Your task to perform on an android device: Open the calendar and show me this week's events? Image 0: 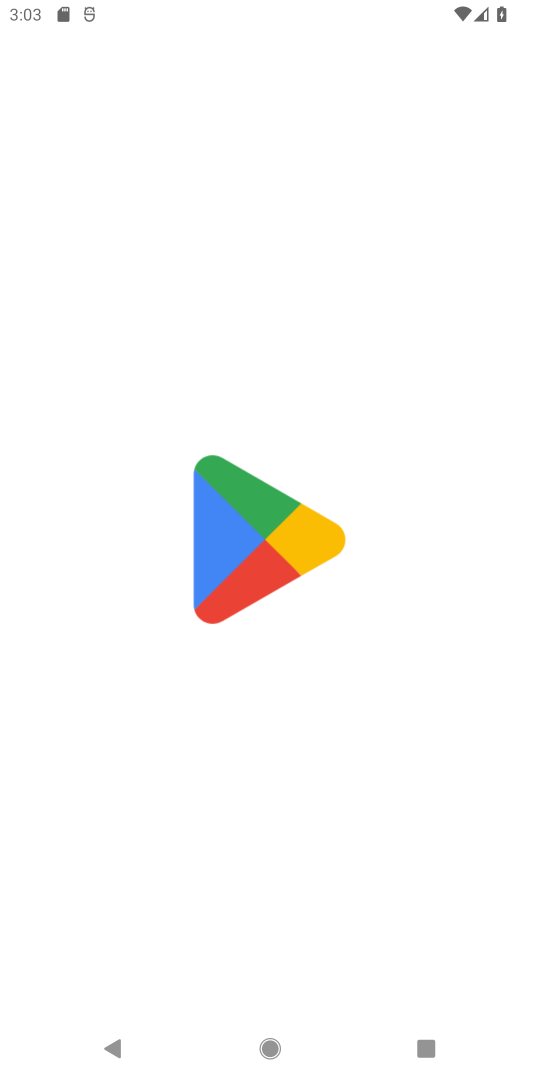
Step 0: press back button
Your task to perform on an android device: Open the calendar and show me this week's events? Image 1: 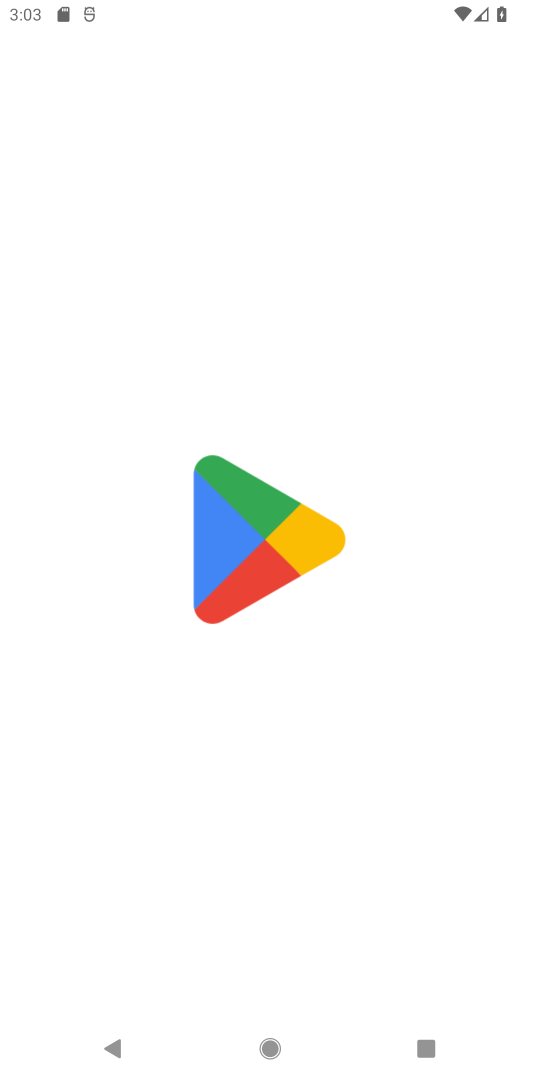
Step 1: press back button
Your task to perform on an android device: Open the calendar and show me this week's events? Image 2: 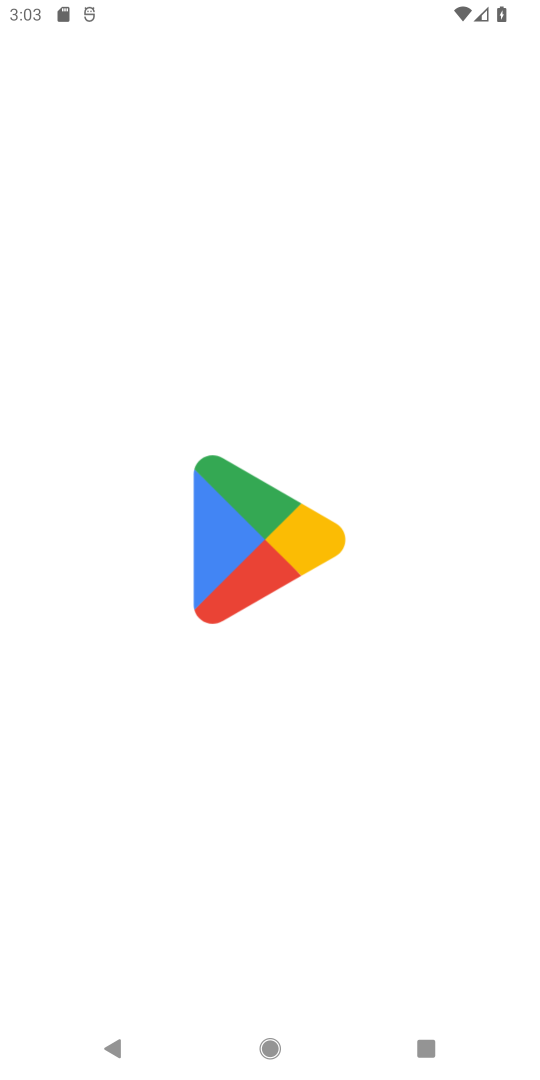
Step 2: click (264, 513)
Your task to perform on an android device: Open the calendar and show me this week's events? Image 3: 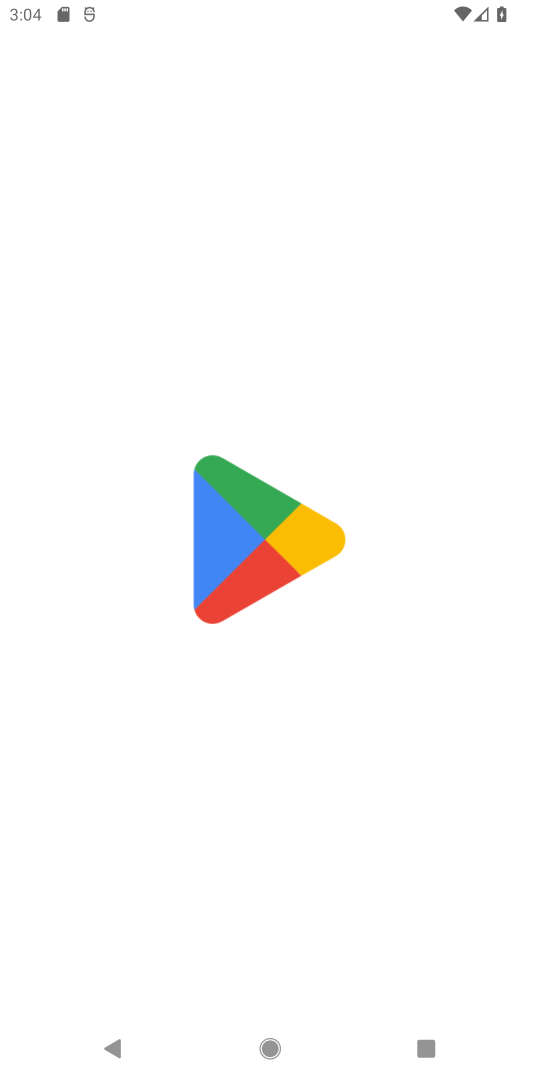
Step 3: press home button
Your task to perform on an android device: Open the calendar and show me this week's events? Image 4: 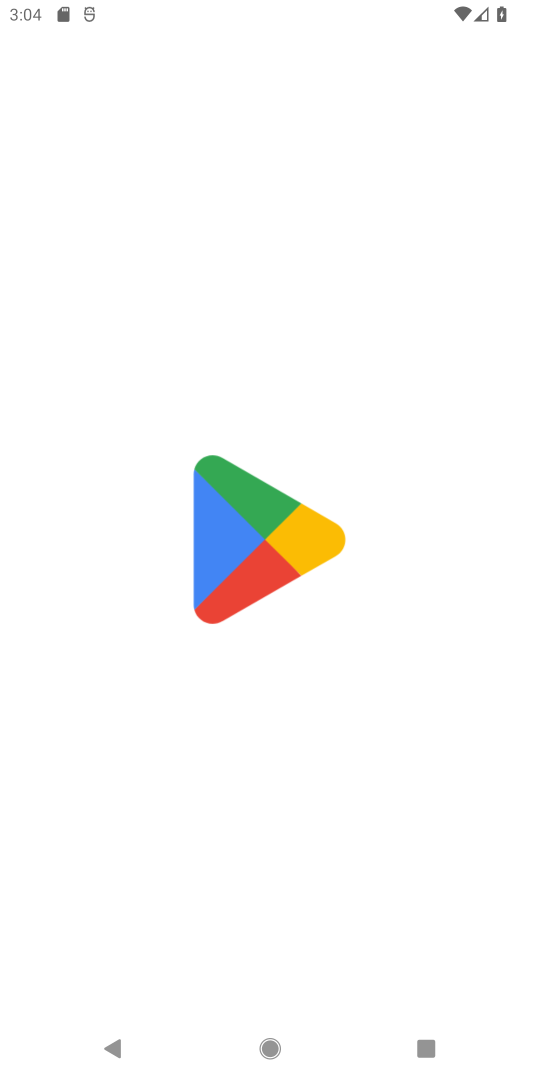
Step 4: click (265, 513)
Your task to perform on an android device: Open the calendar and show me this week's events? Image 5: 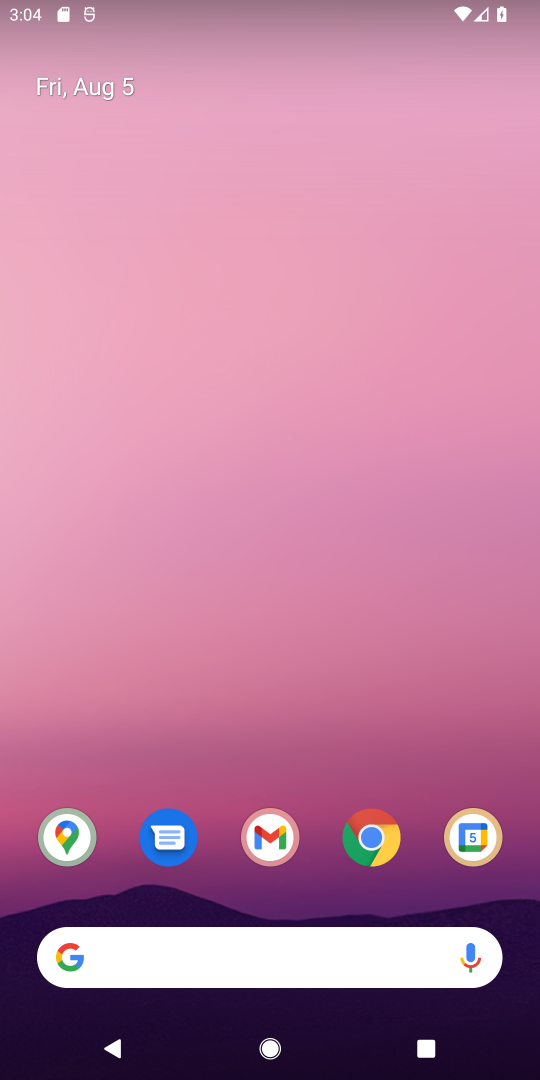
Step 5: click (171, 6)
Your task to perform on an android device: Open the calendar and show me this week's events? Image 6: 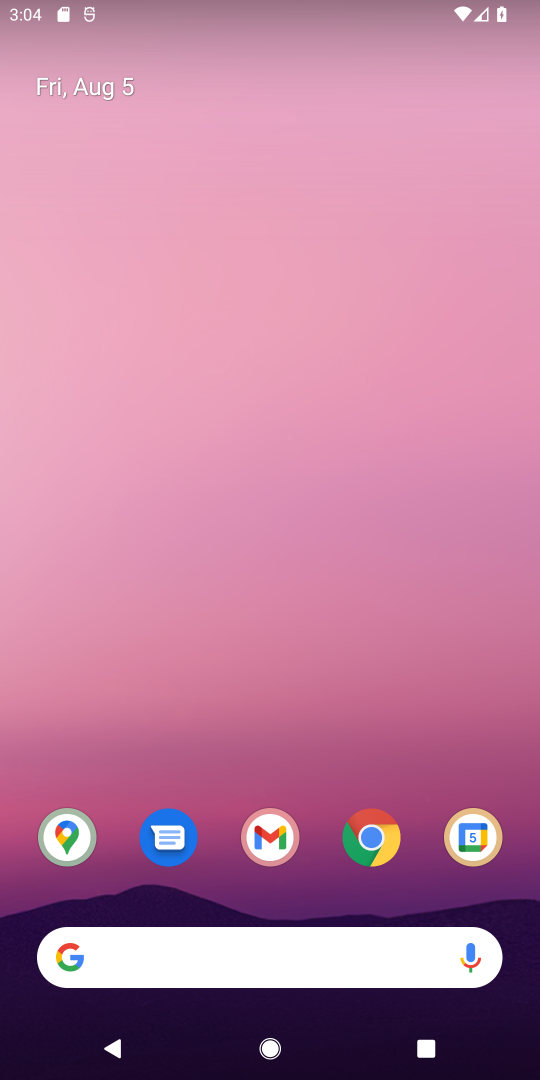
Step 6: click (245, 78)
Your task to perform on an android device: Open the calendar and show me this week's events? Image 7: 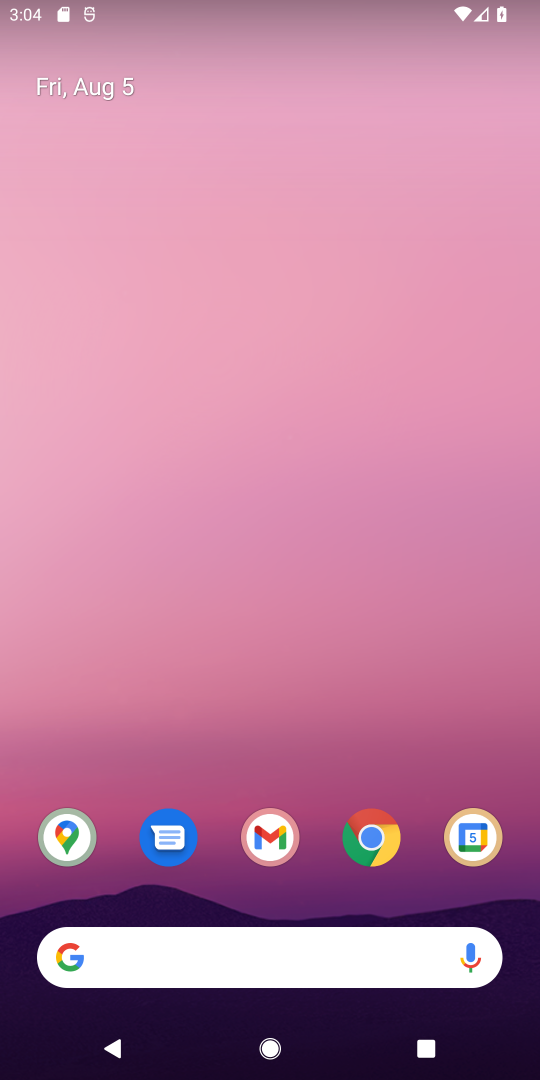
Step 7: click (242, 72)
Your task to perform on an android device: Open the calendar and show me this week's events? Image 8: 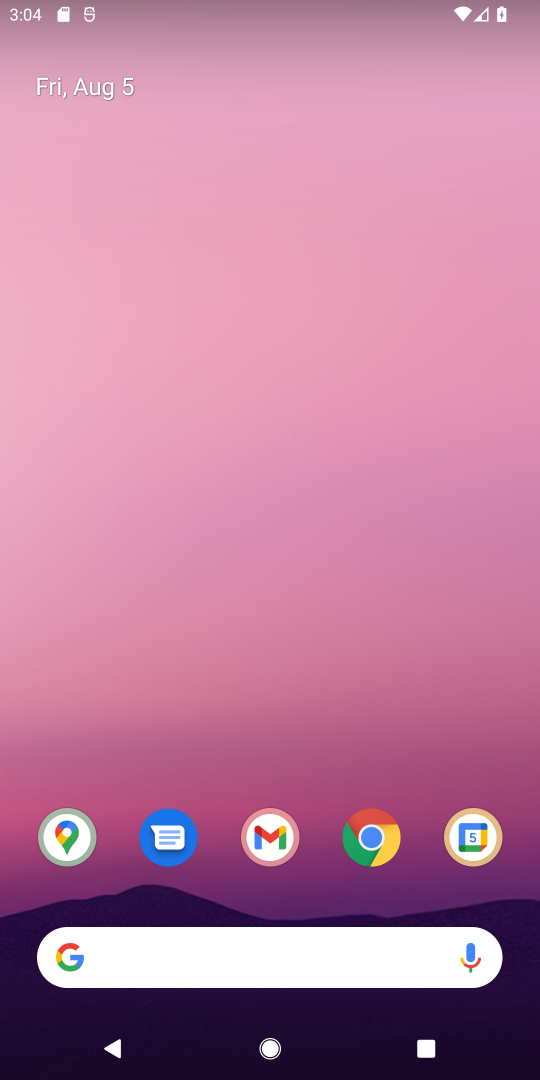
Step 8: drag from (168, 68) to (196, 0)
Your task to perform on an android device: Open the calendar and show me this week's events? Image 9: 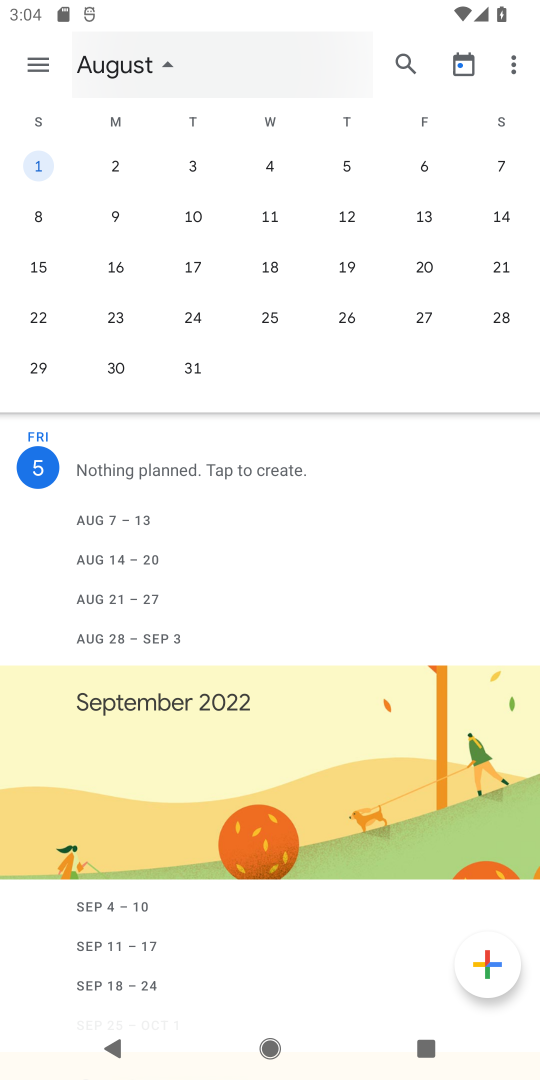
Step 9: drag from (308, 649) to (297, 49)
Your task to perform on an android device: Open the calendar and show me this week's events? Image 10: 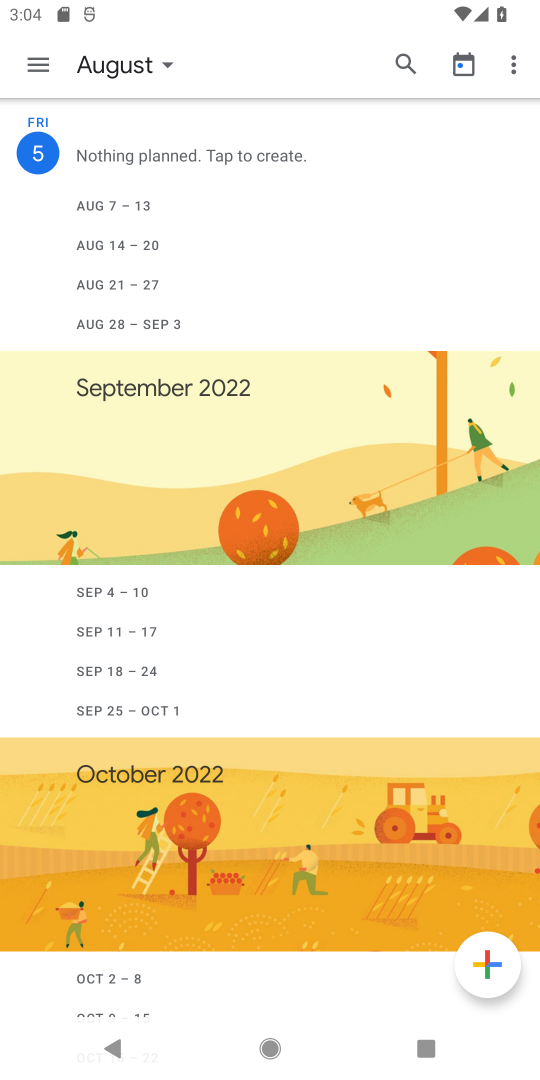
Step 10: click (169, 56)
Your task to perform on an android device: Open the calendar and show me this week's events? Image 11: 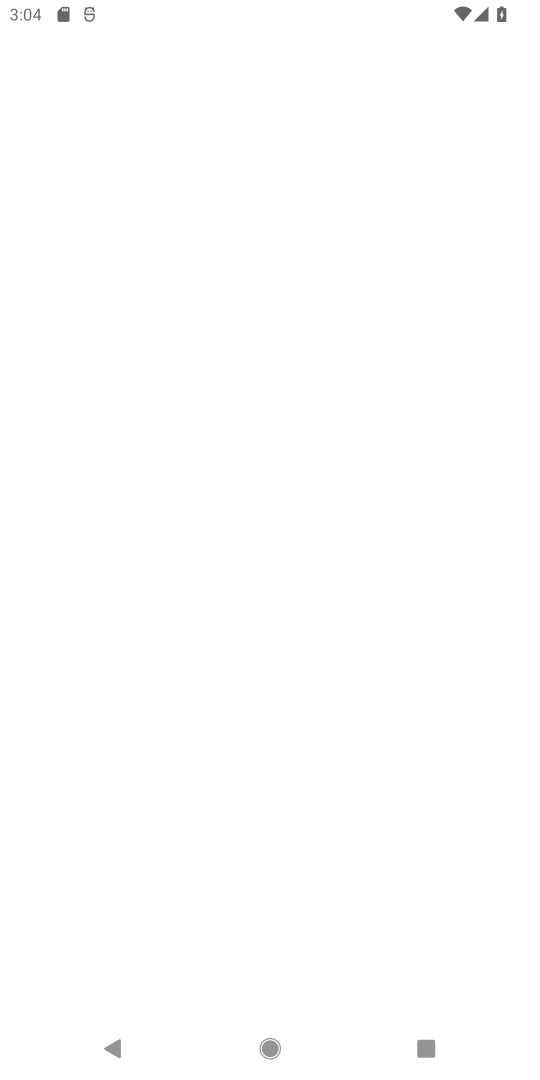
Step 11: click (339, 176)
Your task to perform on an android device: Open the calendar and show me this week's events? Image 12: 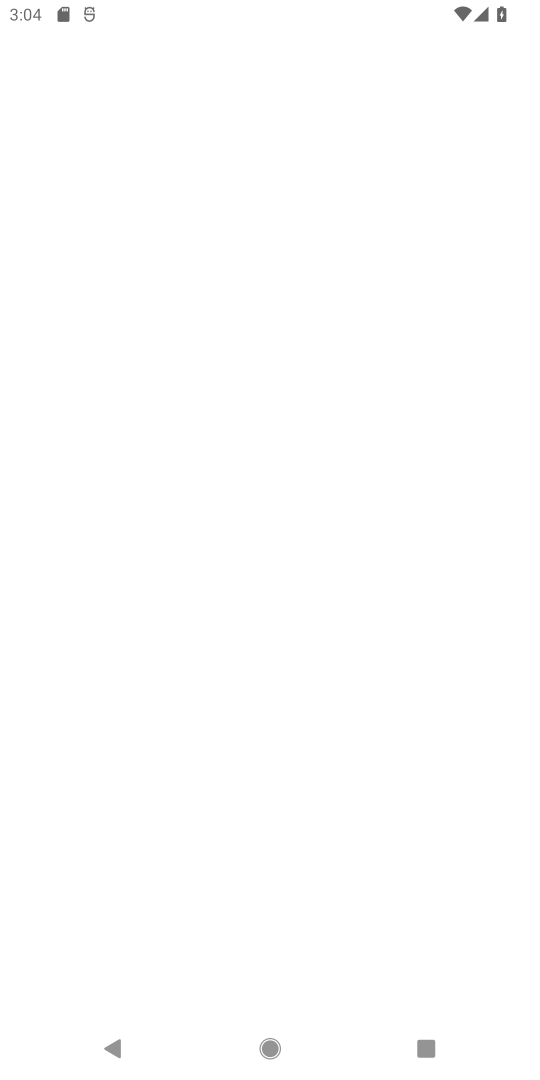
Step 12: click (339, 176)
Your task to perform on an android device: Open the calendar and show me this week's events? Image 13: 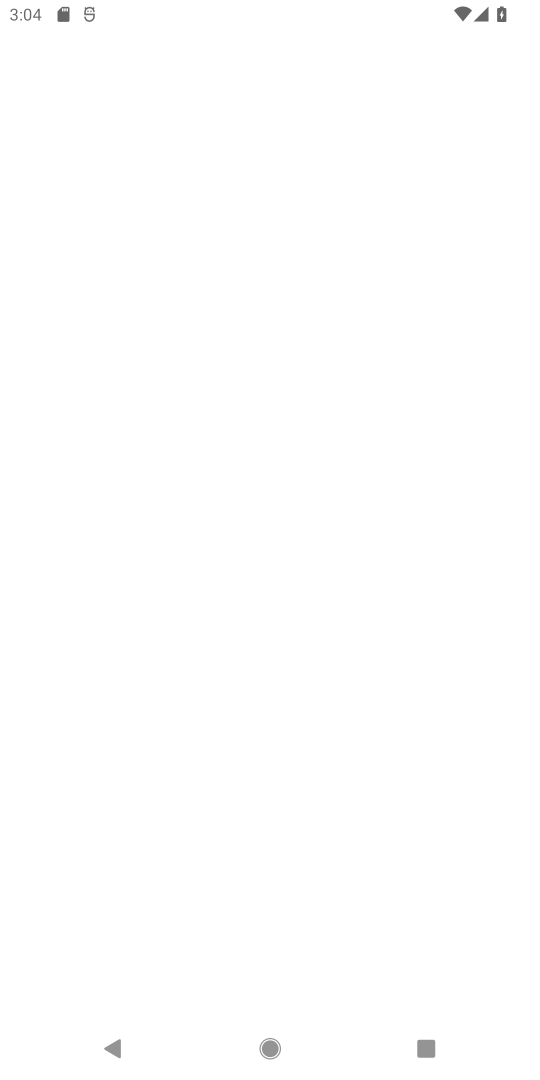
Step 13: click (339, 176)
Your task to perform on an android device: Open the calendar and show me this week's events? Image 14: 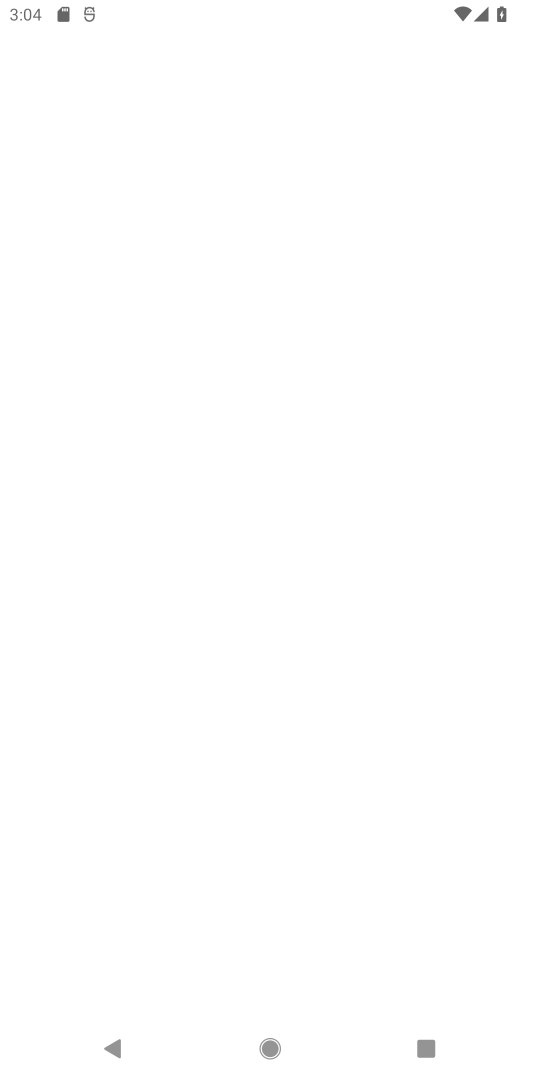
Step 14: click (339, 176)
Your task to perform on an android device: Open the calendar and show me this week's events? Image 15: 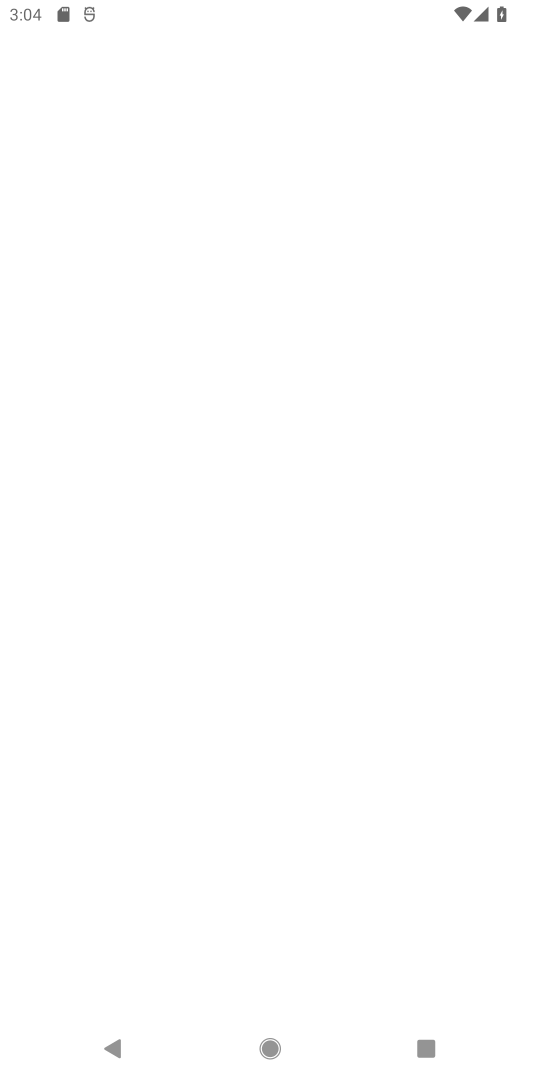
Step 15: click (339, 176)
Your task to perform on an android device: Open the calendar and show me this week's events? Image 16: 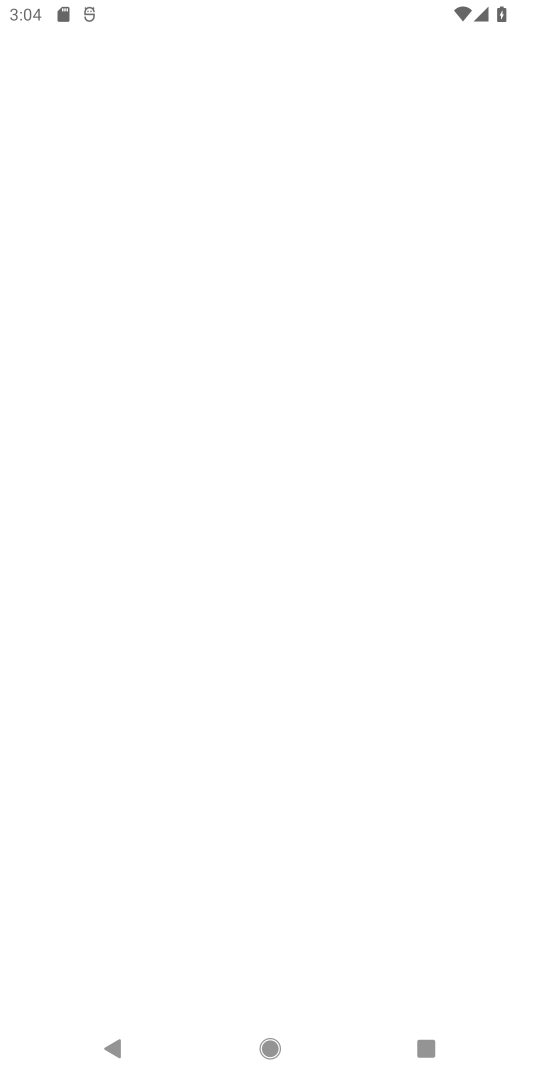
Step 16: click (339, 176)
Your task to perform on an android device: Open the calendar and show me this week's events? Image 17: 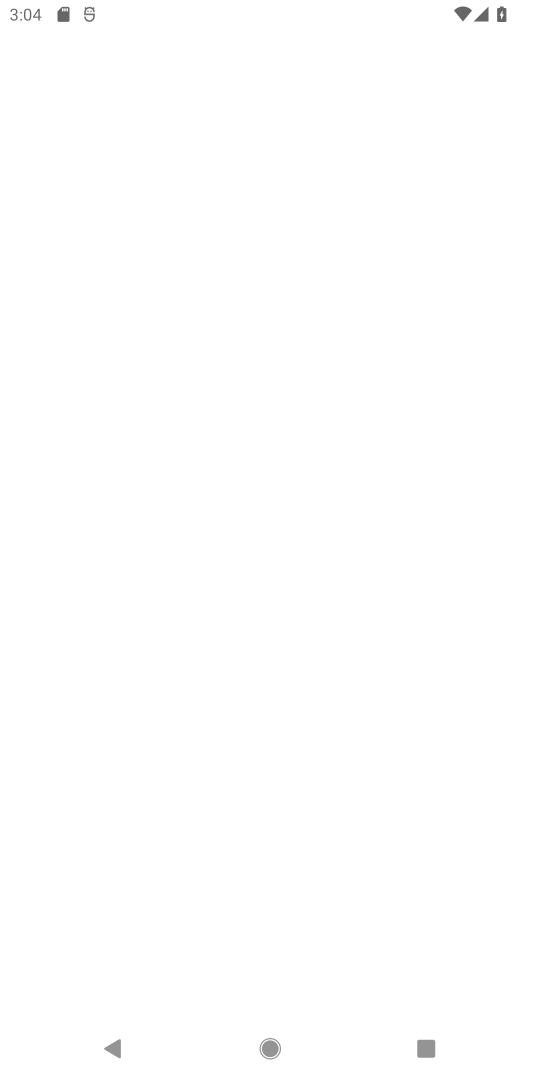
Step 17: click (175, 153)
Your task to perform on an android device: Open the calendar and show me this week's events? Image 18: 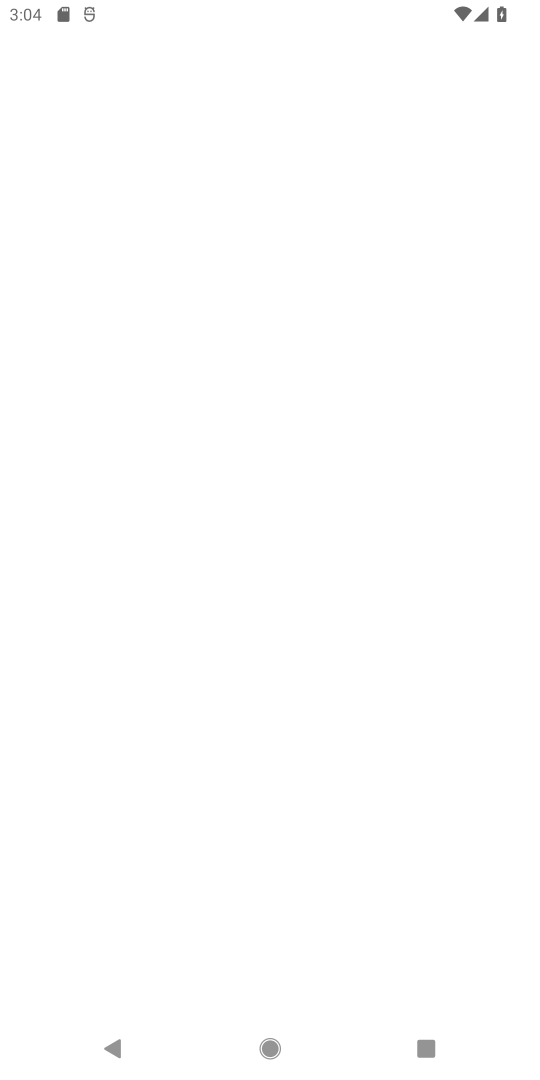
Step 18: drag from (175, 153) to (114, 122)
Your task to perform on an android device: Open the calendar and show me this week's events? Image 19: 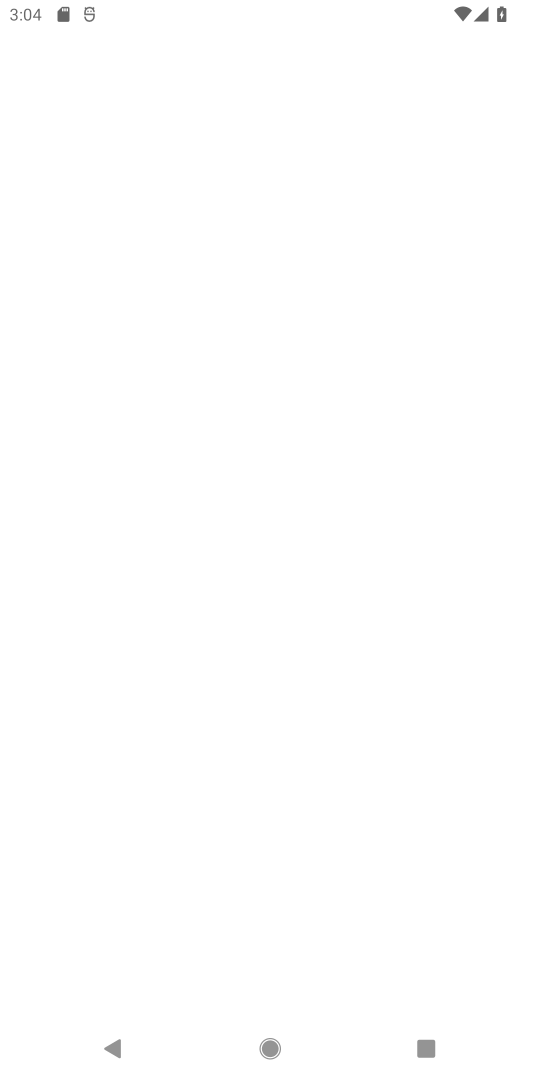
Step 19: click (133, 111)
Your task to perform on an android device: Open the calendar and show me this week's events? Image 20: 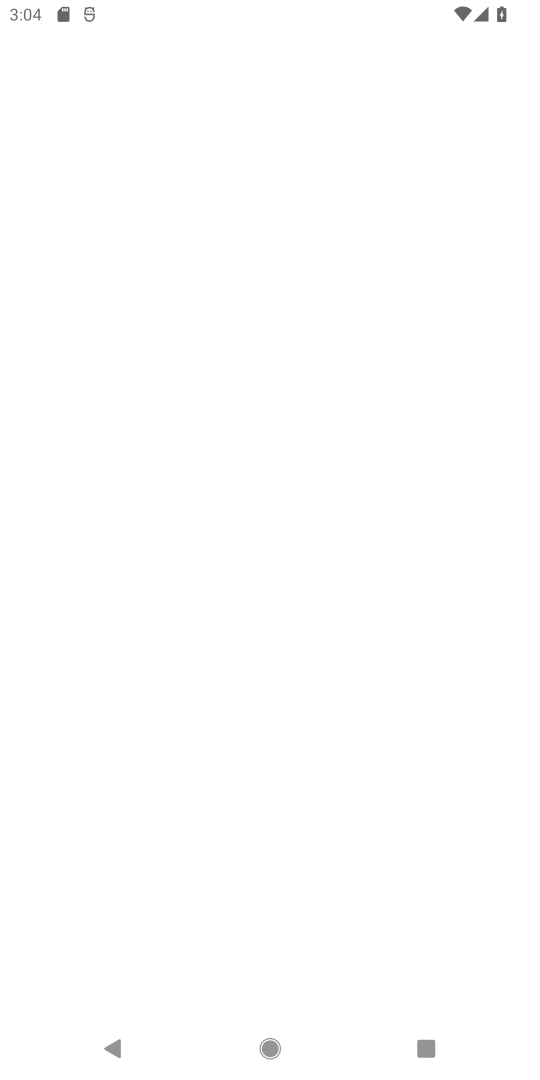
Step 20: click (169, 172)
Your task to perform on an android device: Open the calendar and show me this week's events? Image 21: 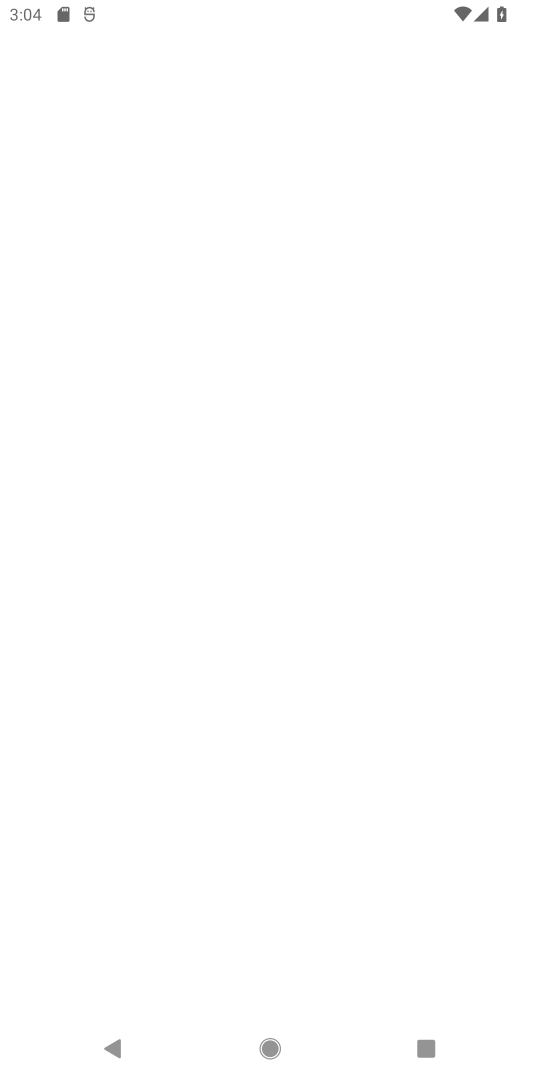
Step 21: click (169, 173)
Your task to perform on an android device: Open the calendar and show me this week's events? Image 22: 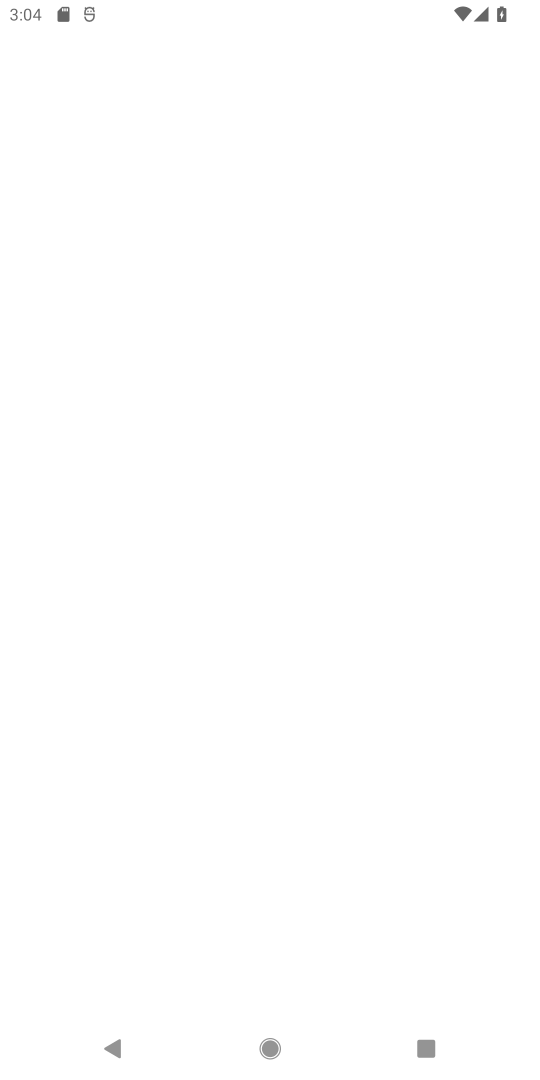
Step 22: click (171, 181)
Your task to perform on an android device: Open the calendar and show me this week's events? Image 23: 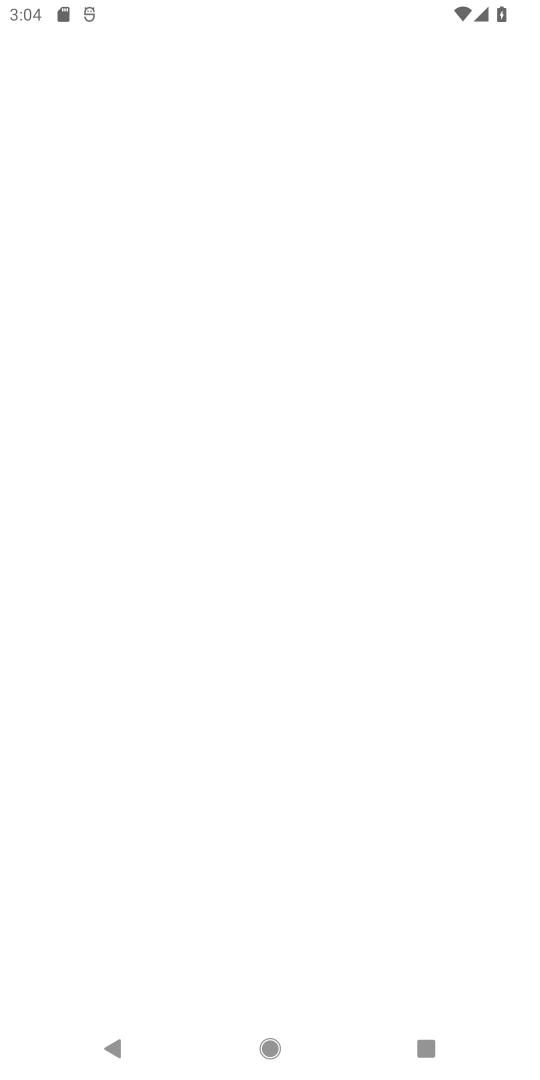
Step 23: click (171, 181)
Your task to perform on an android device: Open the calendar and show me this week's events? Image 24: 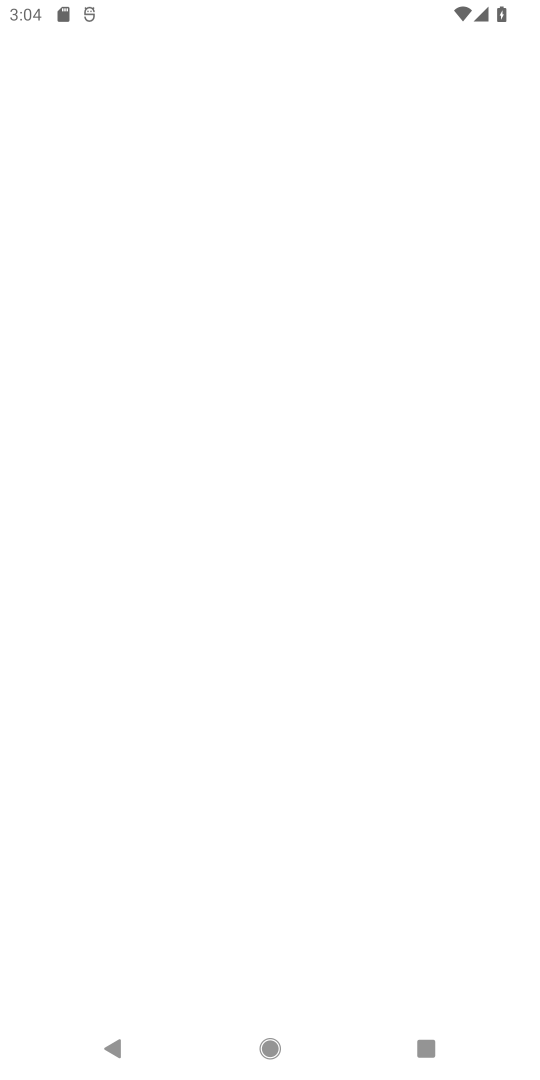
Step 24: click (76, 81)
Your task to perform on an android device: Open the calendar and show me this week's events? Image 25: 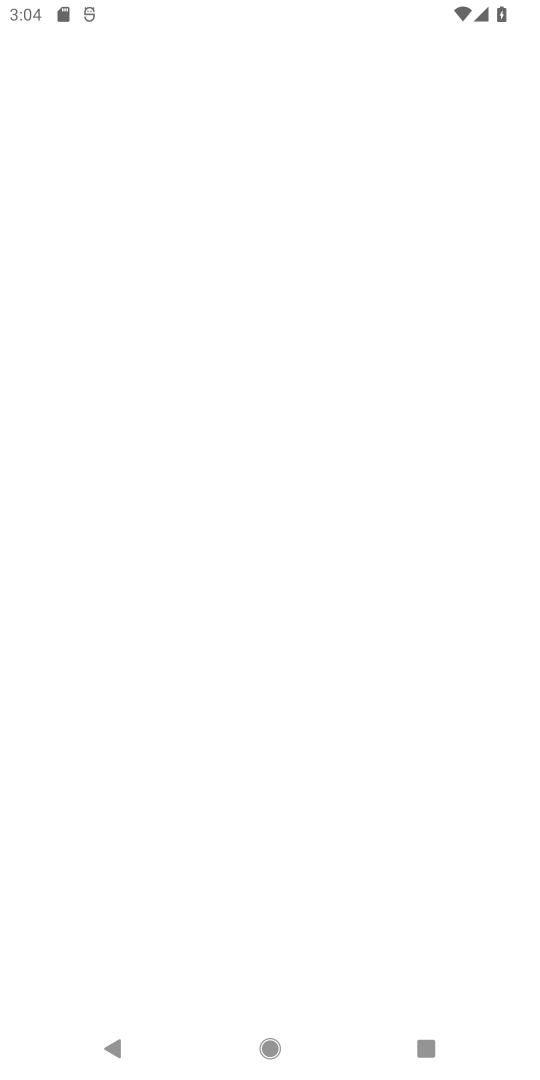
Step 25: click (79, 84)
Your task to perform on an android device: Open the calendar and show me this week's events? Image 26: 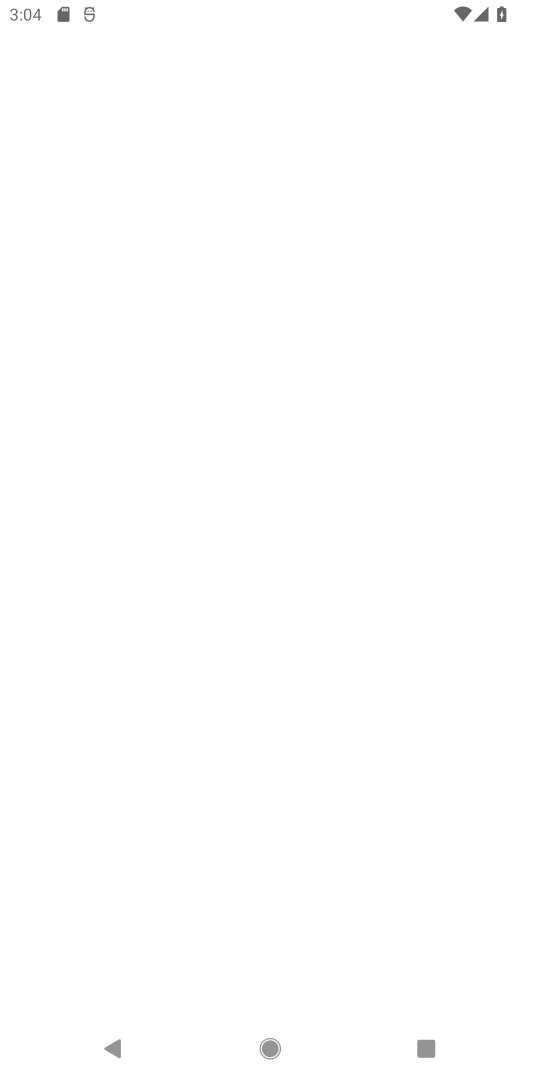
Step 26: click (84, 88)
Your task to perform on an android device: Open the calendar and show me this week's events? Image 27: 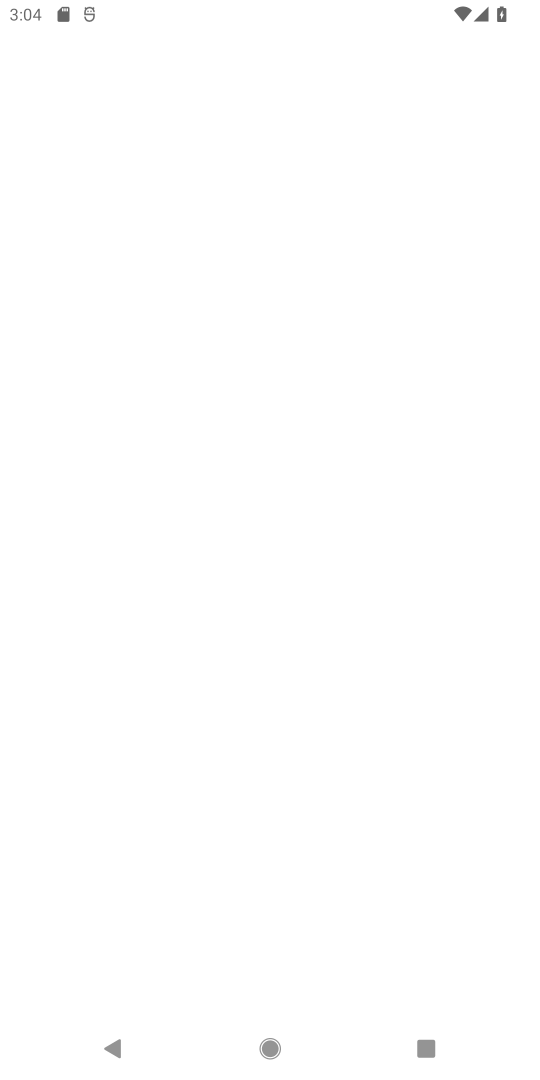
Step 27: click (90, 91)
Your task to perform on an android device: Open the calendar and show me this week's events? Image 28: 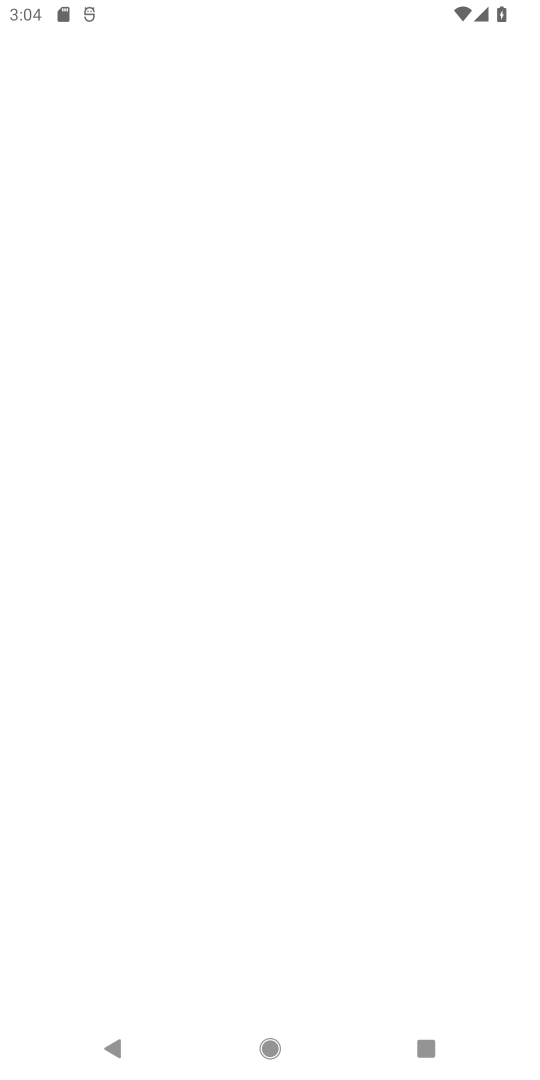
Step 28: click (106, 102)
Your task to perform on an android device: Open the calendar and show me this week's events? Image 29: 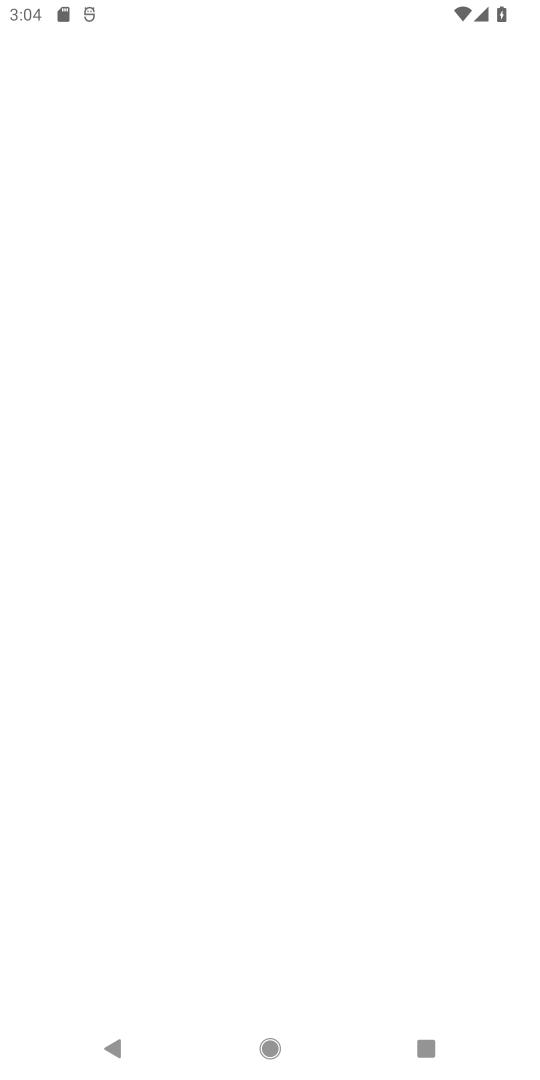
Step 29: drag from (62, 74) to (124, 103)
Your task to perform on an android device: Open the calendar and show me this week's events? Image 30: 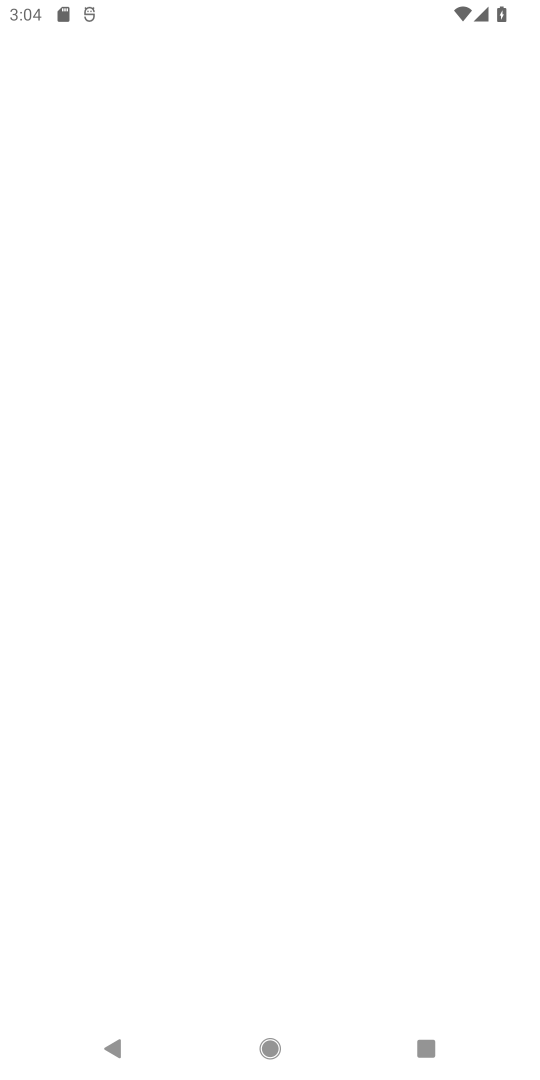
Step 30: click (138, 118)
Your task to perform on an android device: Open the calendar and show me this week's events? Image 31: 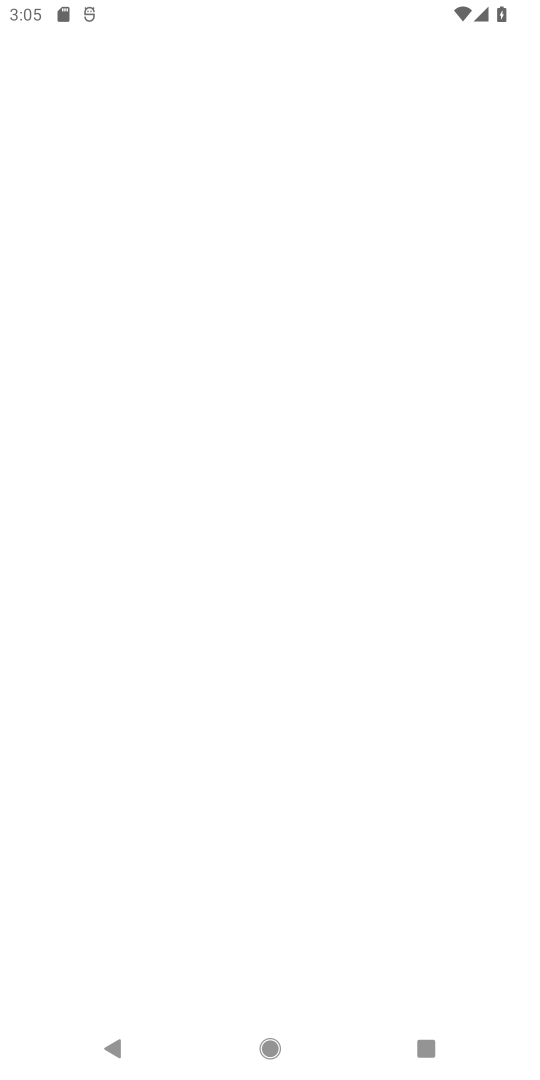
Step 31: click (329, 171)
Your task to perform on an android device: Open the calendar and show me this week's events? Image 32: 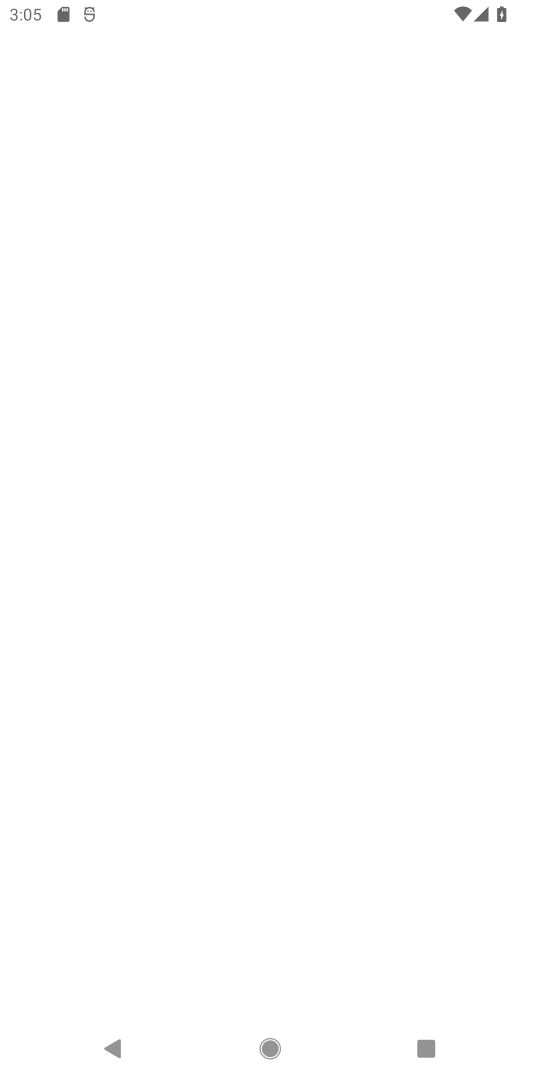
Step 32: click (322, 183)
Your task to perform on an android device: Open the calendar and show me this week's events? Image 33: 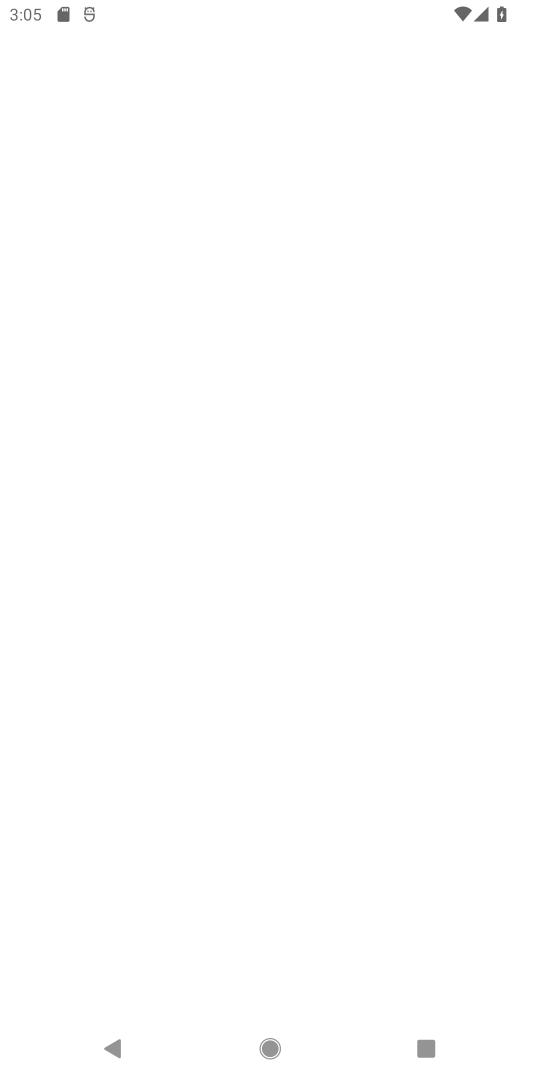
Step 33: click (312, 207)
Your task to perform on an android device: Open the calendar and show me this week's events? Image 34: 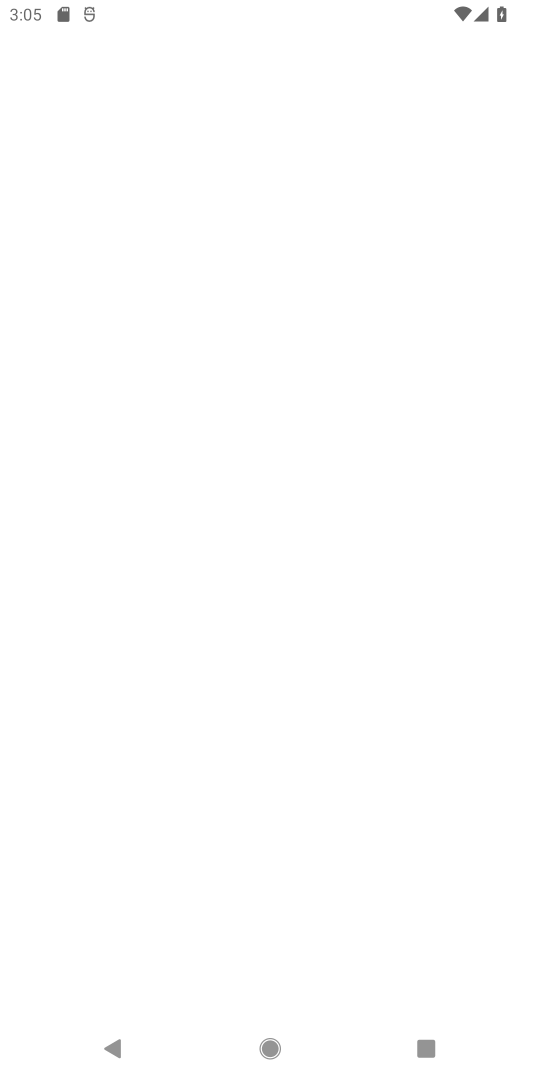
Step 34: click (311, 214)
Your task to perform on an android device: Open the calendar and show me this week's events? Image 35: 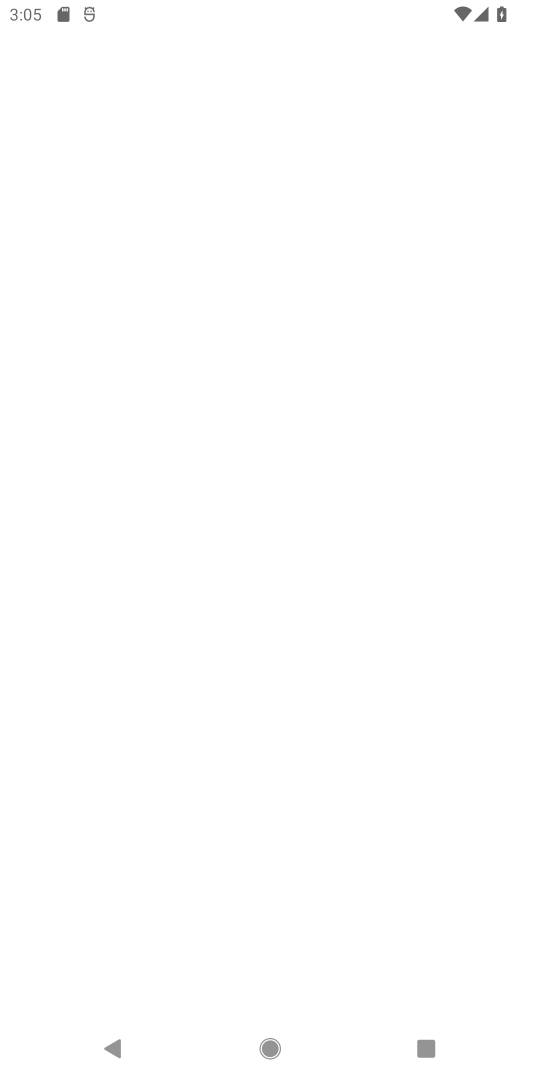
Step 35: click (309, 217)
Your task to perform on an android device: Open the calendar and show me this week's events? Image 36: 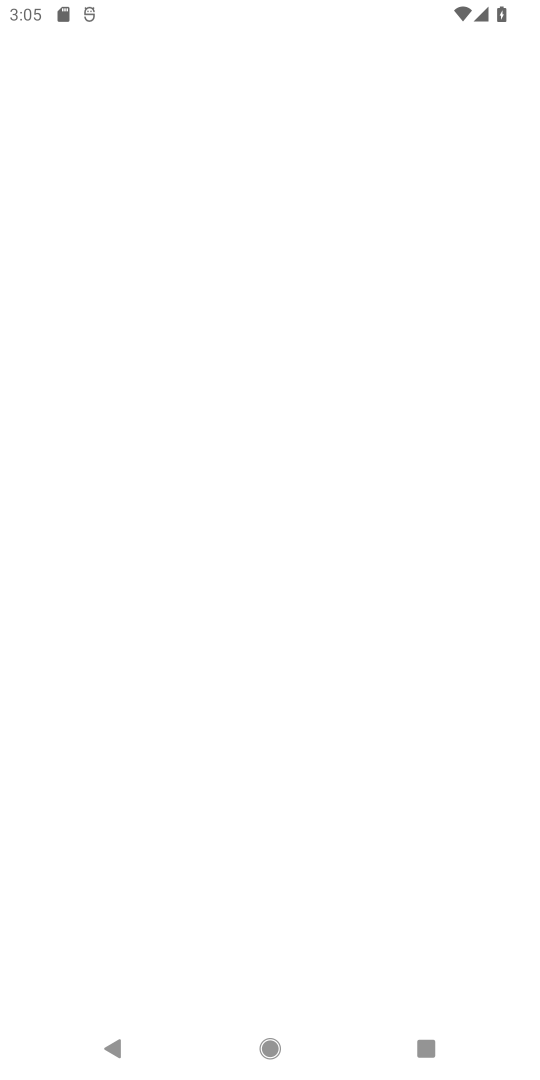
Step 36: click (312, 214)
Your task to perform on an android device: Open the calendar and show me this week's events? Image 37: 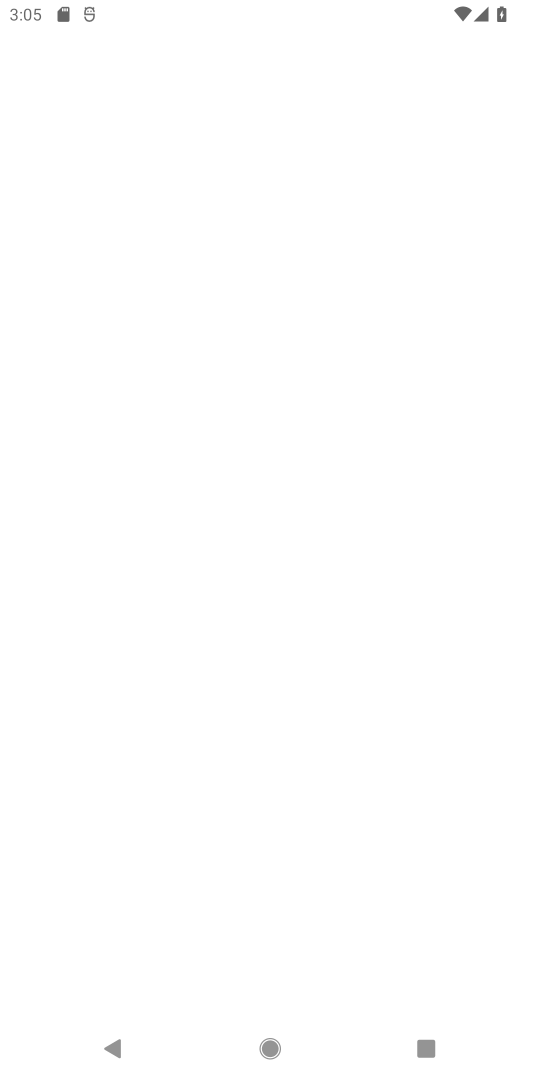
Step 37: click (68, 37)
Your task to perform on an android device: Open the calendar and show me this week's events? Image 38: 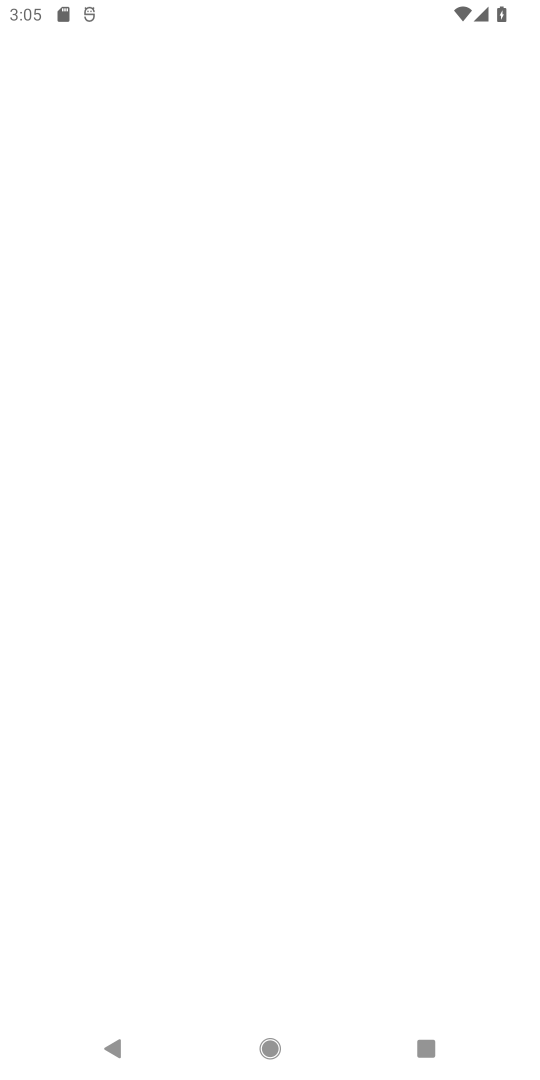
Step 38: click (52, 2)
Your task to perform on an android device: Open the calendar and show me this week's events? Image 39: 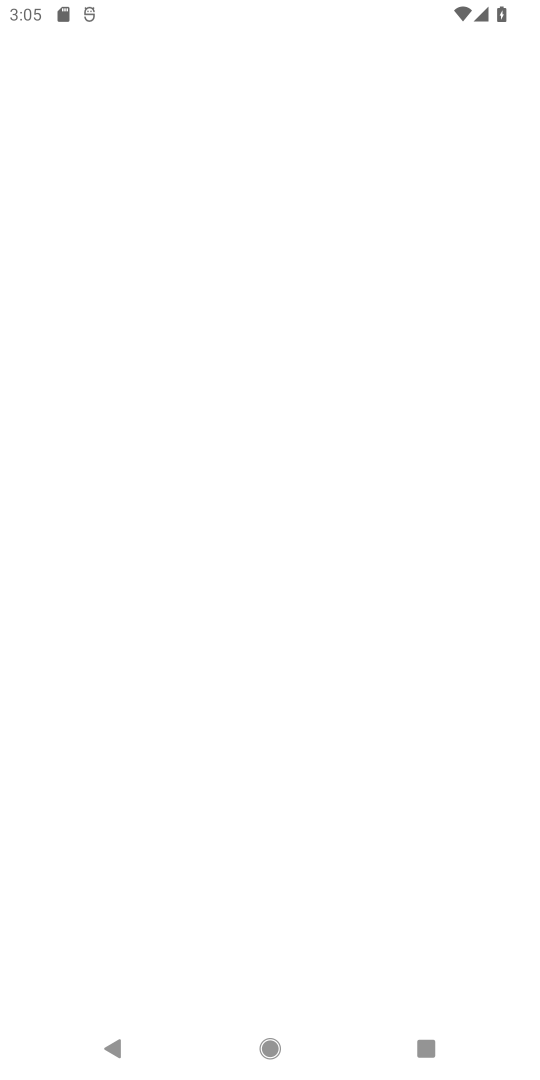
Step 39: click (54, 0)
Your task to perform on an android device: Open the calendar and show me this week's events? Image 40: 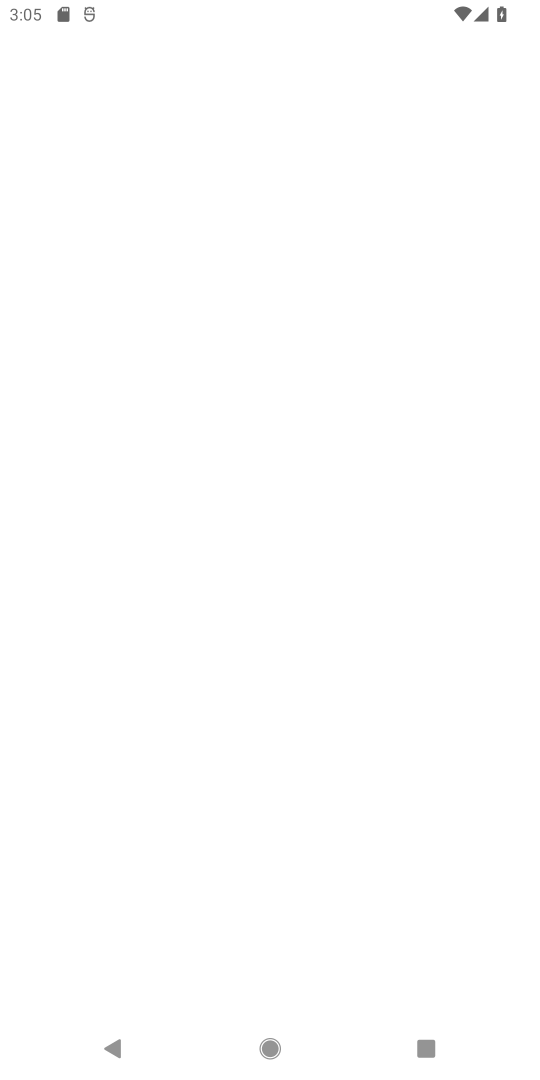
Step 40: click (55, 2)
Your task to perform on an android device: Open the calendar and show me this week's events? Image 41: 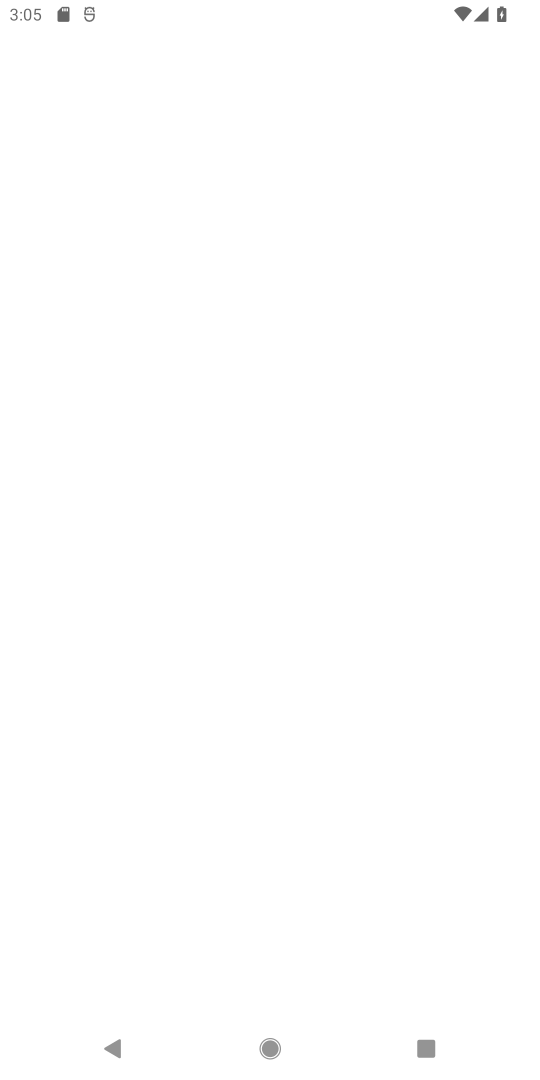
Step 41: click (55, 2)
Your task to perform on an android device: Open the calendar and show me this week's events? Image 42: 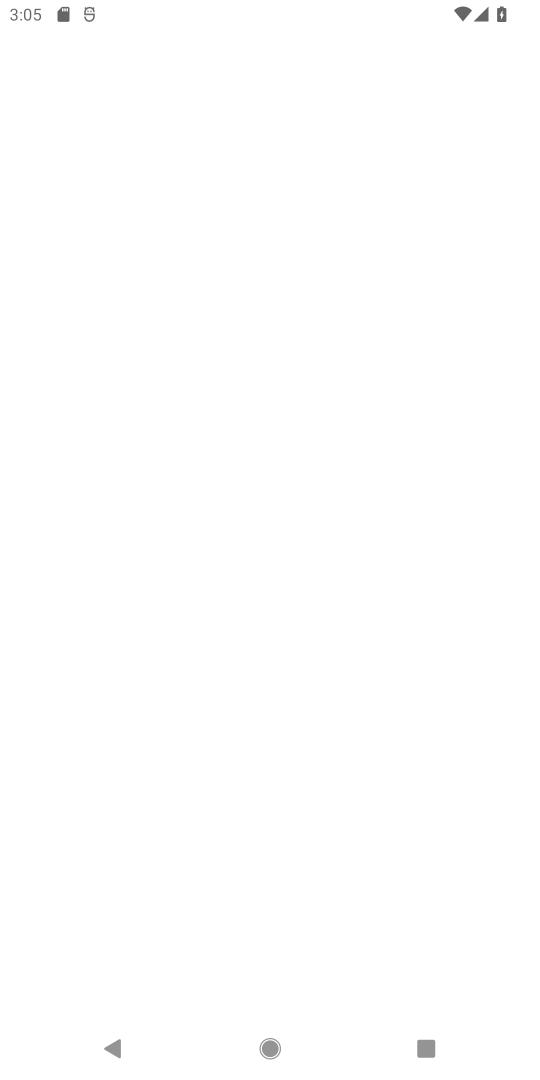
Step 42: click (55, 2)
Your task to perform on an android device: Open the calendar and show me this week's events? Image 43: 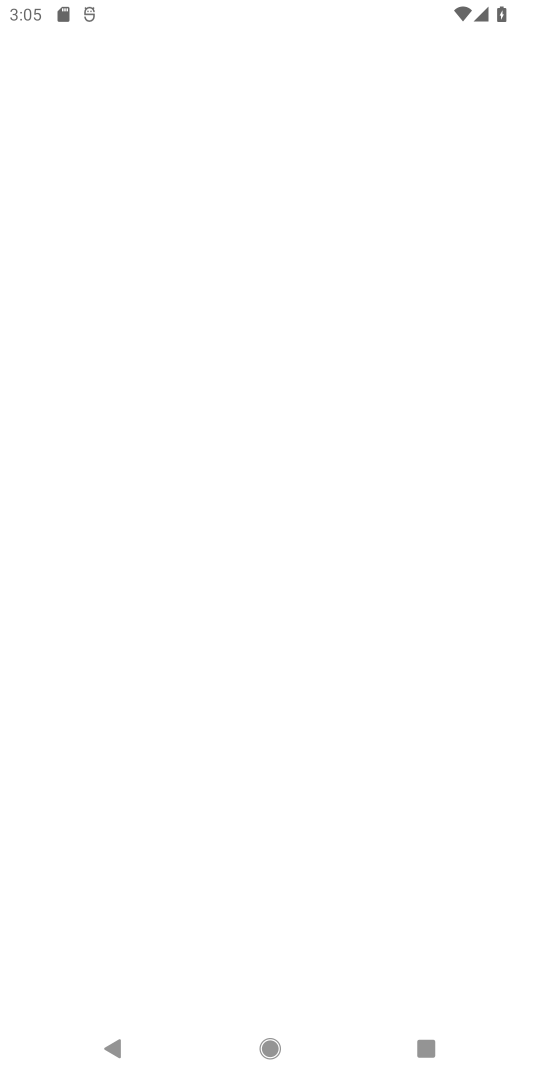
Step 43: click (55, 2)
Your task to perform on an android device: Open the calendar and show me this week's events? Image 44: 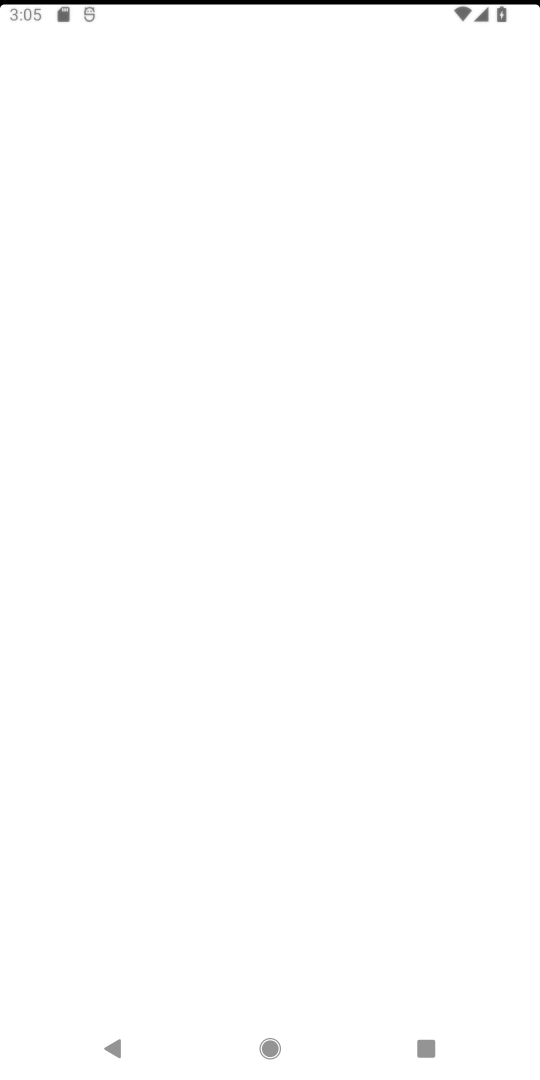
Step 44: drag from (77, 32) to (188, 385)
Your task to perform on an android device: Open the calendar and show me this week's events? Image 45: 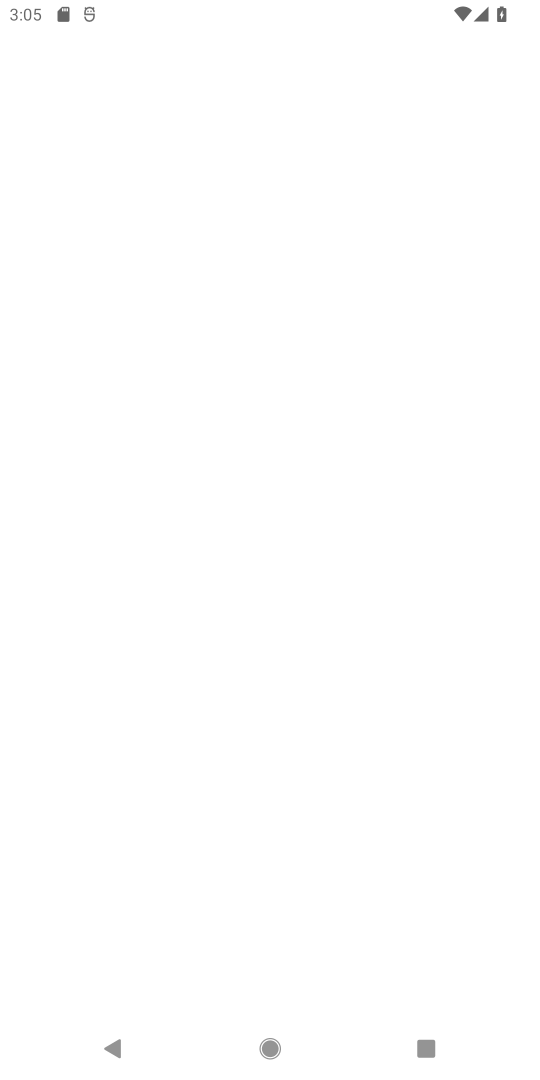
Step 45: drag from (195, 397) to (257, 131)
Your task to perform on an android device: Open the calendar and show me this week's events? Image 46: 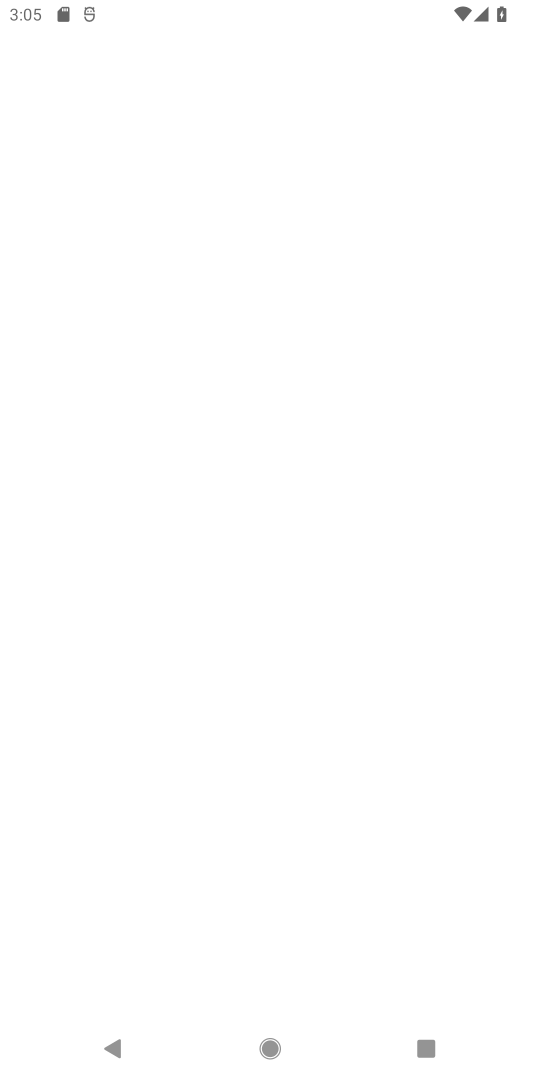
Step 46: drag from (93, 826) to (153, 305)
Your task to perform on an android device: Open the calendar and show me this week's events? Image 47: 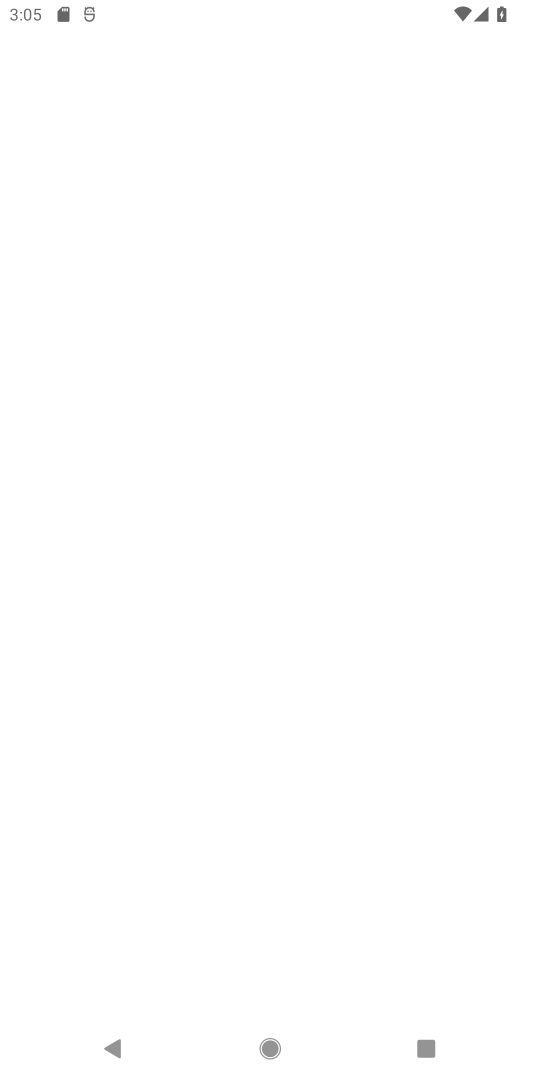
Step 47: drag from (220, 706) to (197, 41)
Your task to perform on an android device: Open the calendar and show me this week's events? Image 48: 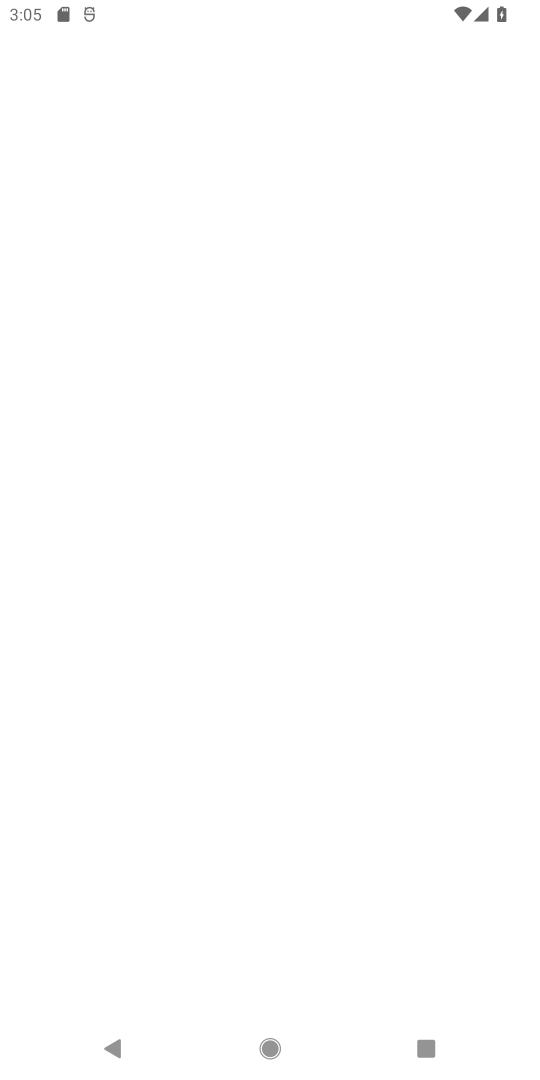
Step 48: drag from (350, 536) to (321, 89)
Your task to perform on an android device: Open the calendar and show me this week's events? Image 49: 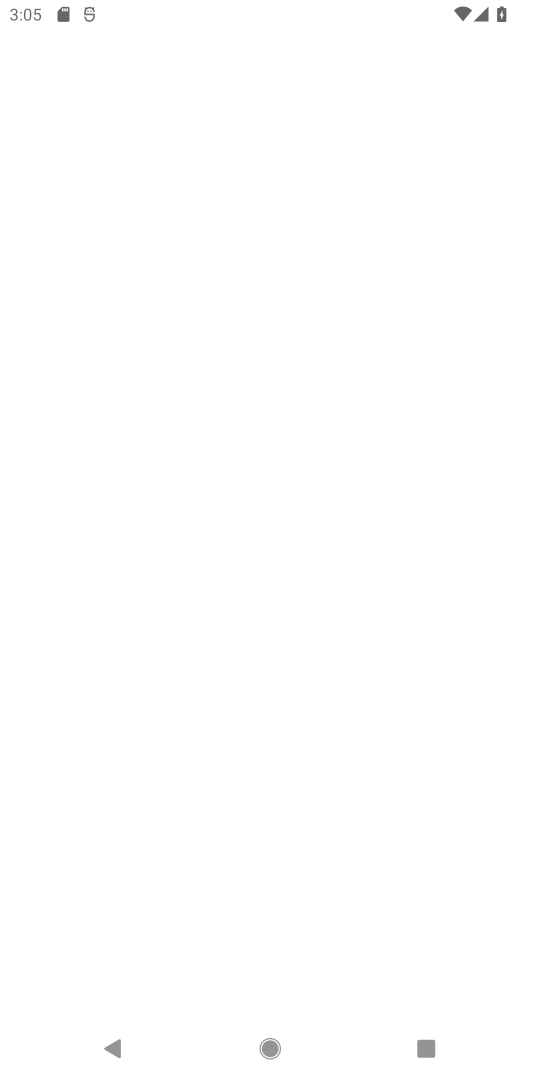
Step 49: drag from (326, 533) to (287, 222)
Your task to perform on an android device: Open the calendar and show me this week's events? Image 50: 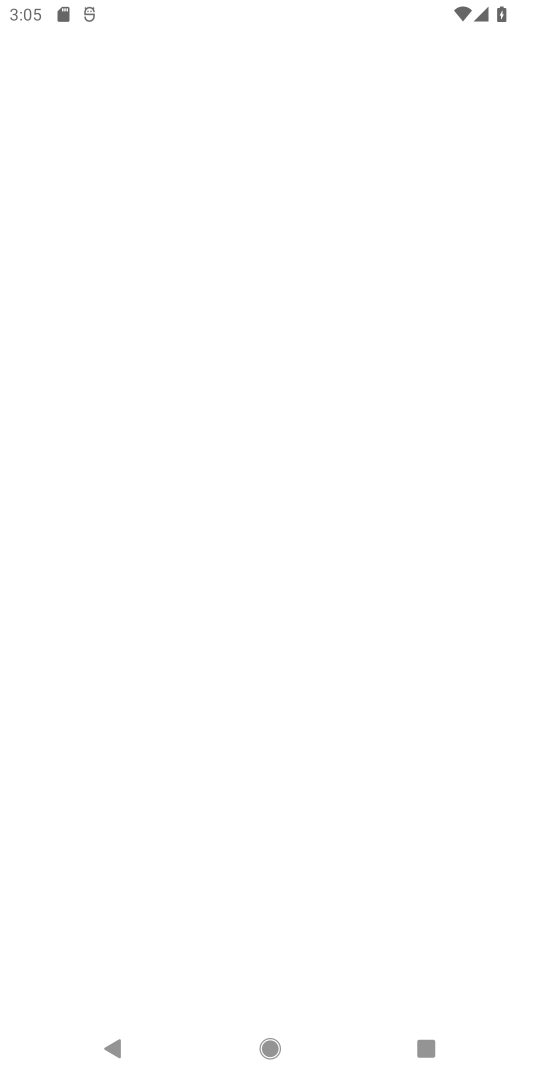
Step 50: click (242, 358)
Your task to perform on an android device: Open the calendar and show me this week's events? Image 51: 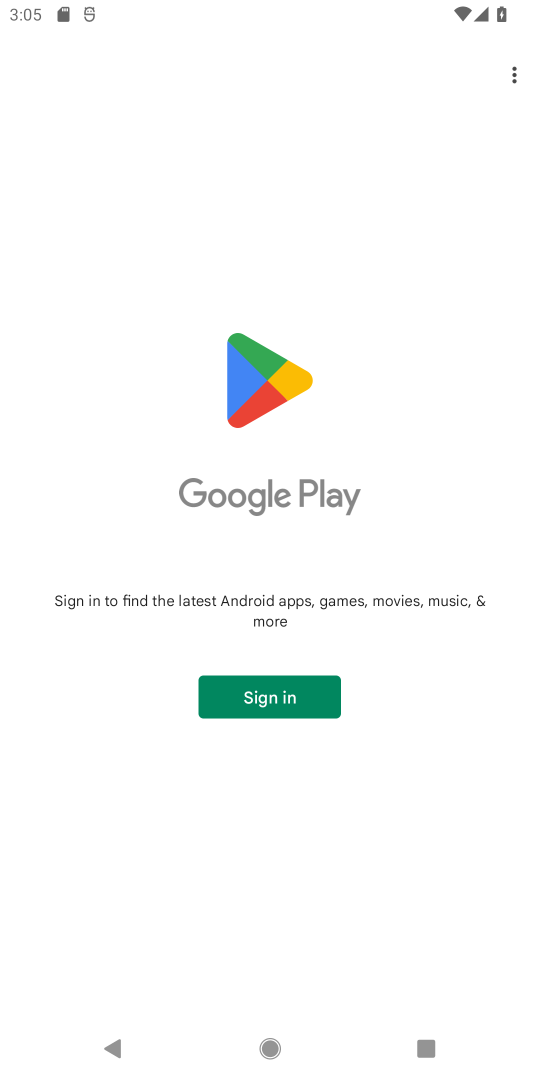
Step 51: task complete